Your task to perform on an android device: turn vacation reply on in the gmail app Image 0: 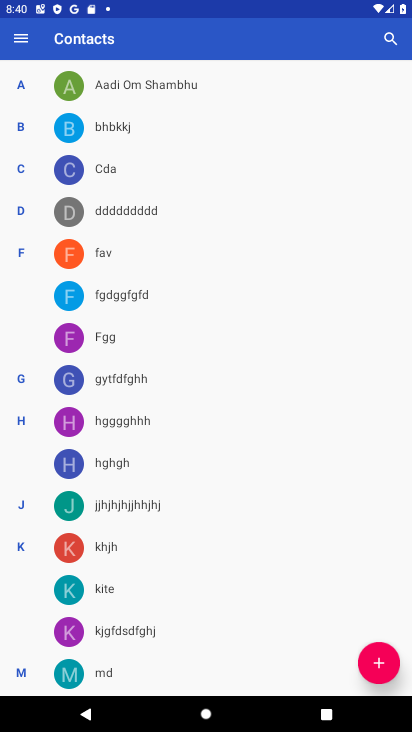
Step 0: press home button
Your task to perform on an android device: turn vacation reply on in the gmail app Image 1: 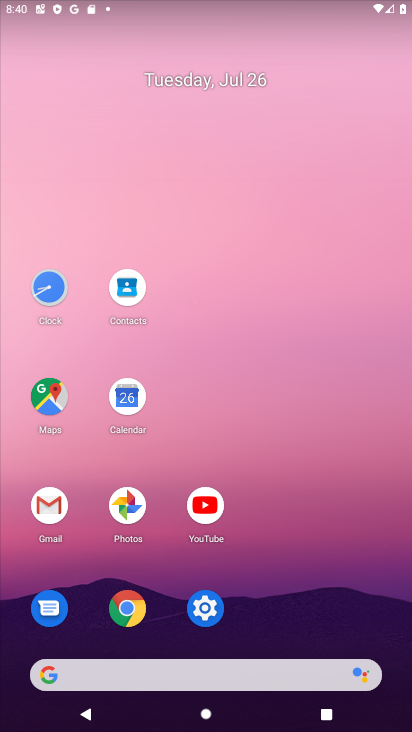
Step 1: click (46, 499)
Your task to perform on an android device: turn vacation reply on in the gmail app Image 2: 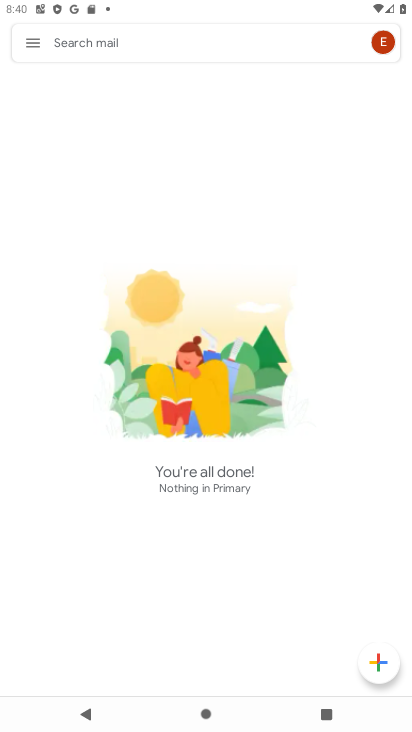
Step 2: click (27, 45)
Your task to perform on an android device: turn vacation reply on in the gmail app Image 3: 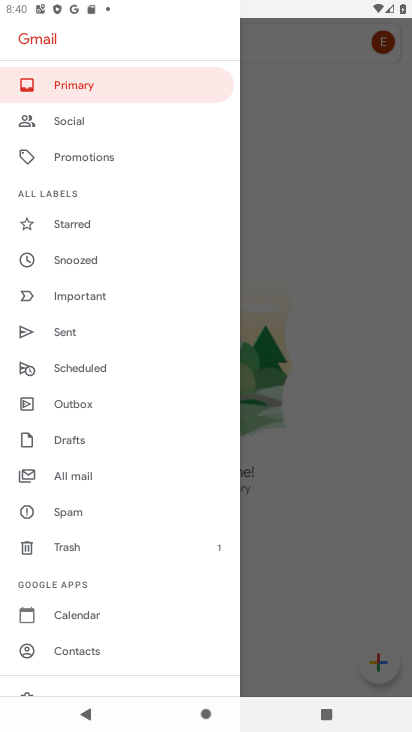
Step 3: drag from (148, 615) to (137, 353)
Your task to perform on an android device: turn vacation reply on in the gmail app Image 4: 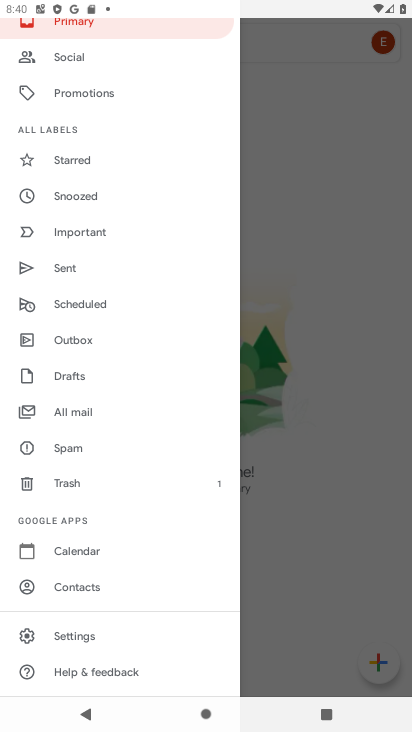
Step 4: click (72, 633)
Your task to perform on an android device: turn vacation reply on in the gmail app Image 5: 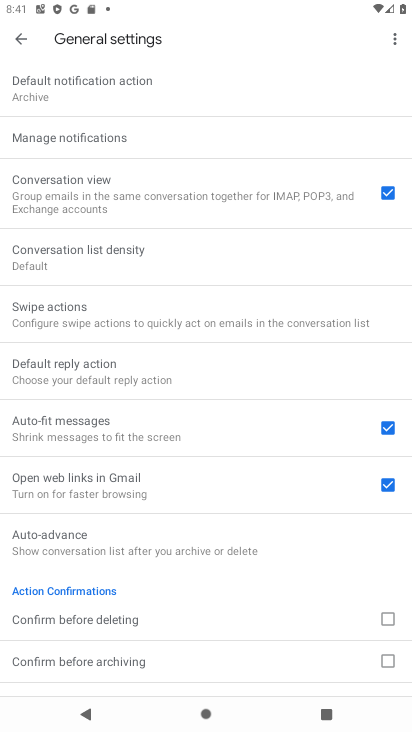
Step 5: click (16, 36)
Your task to perform on an android device: turn vacation reply on in the gmail app Image 6: 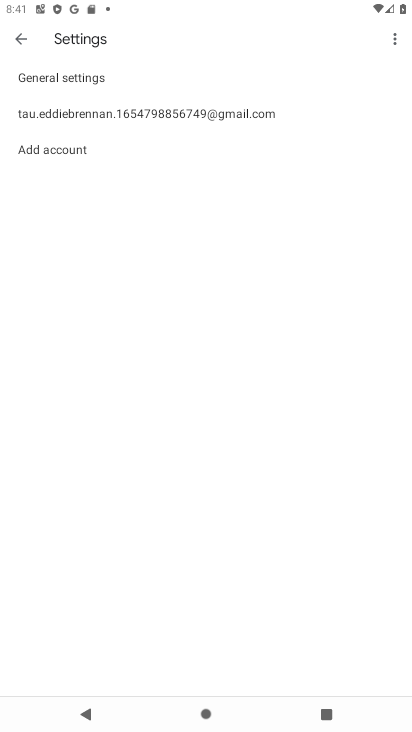
Step 6: click (76, 113)
Your task to perform on an android device: turn vacation reply on in the gmail app Image 7: 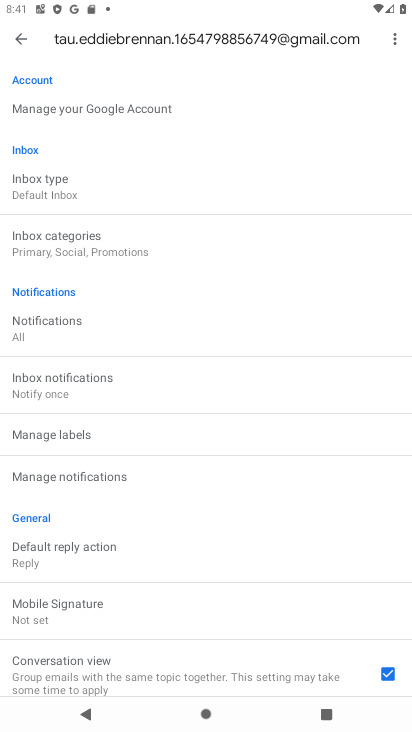
Step 7: drag from (177, 592) to (162, 209)
Your task to perform on an android device: turn vacation reply on in the gmail app Image 8: 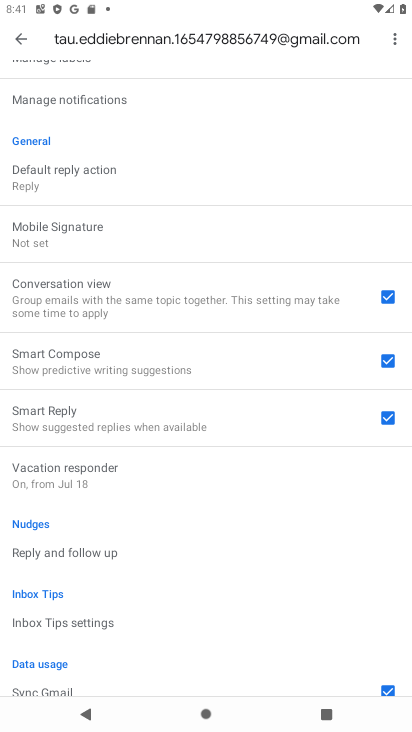
Step 8: drag from (156, 618) to (153, 326)
Your task to perform on an android device: turn vacation reply on in the gmail app Image 9: 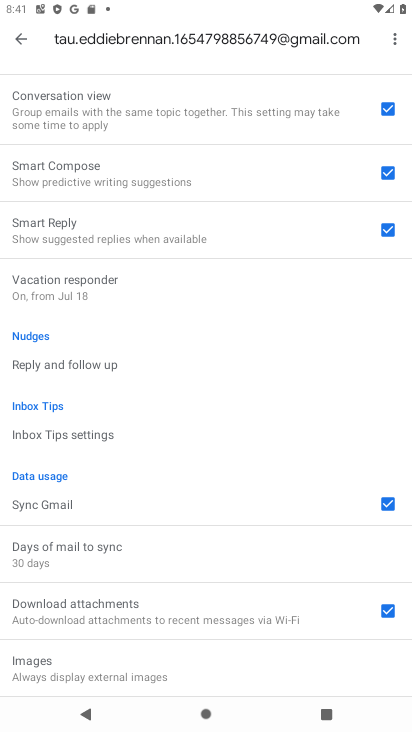
Step 9: click (74, 277)
Your task to perform on an android device: turn vacation reply on in the gmail app Image 10: 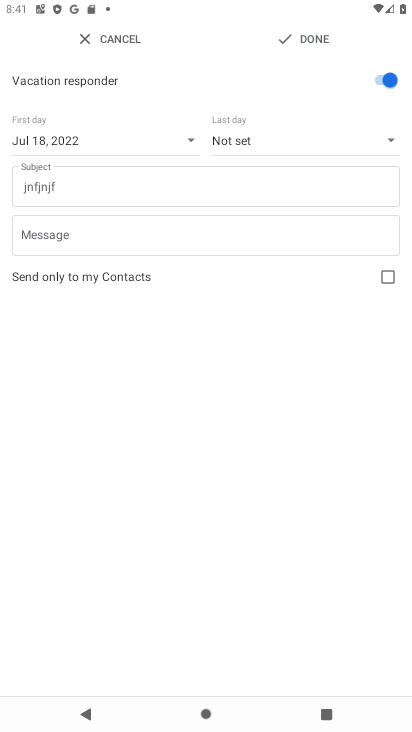
Step 10: click (285, 41)
Your task to perform on an android device: turn vacation reply on in the gmail app Image 11: 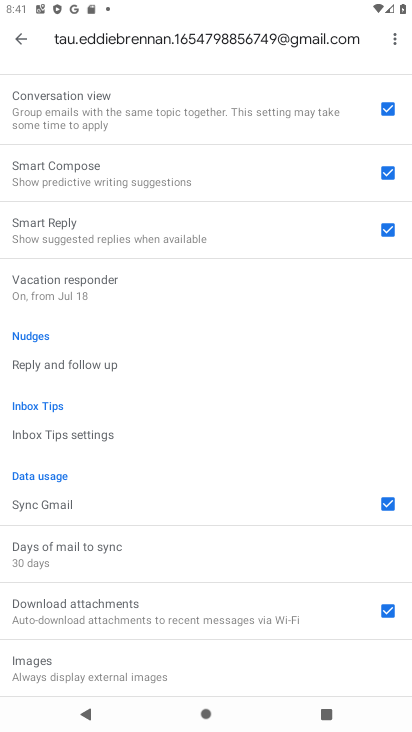
Step 11: task complete